Your task to perform on an android device: delete a single message in the gmail app Image 0: 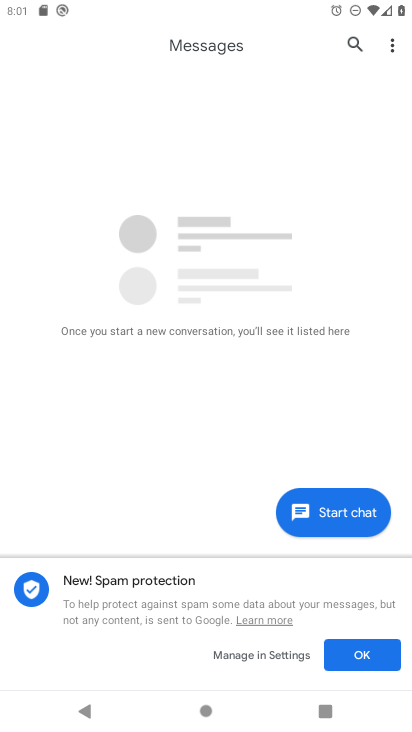
Step 0: press home button
Your task to perform on an android device: delete a single message in the gmail app Image 1: 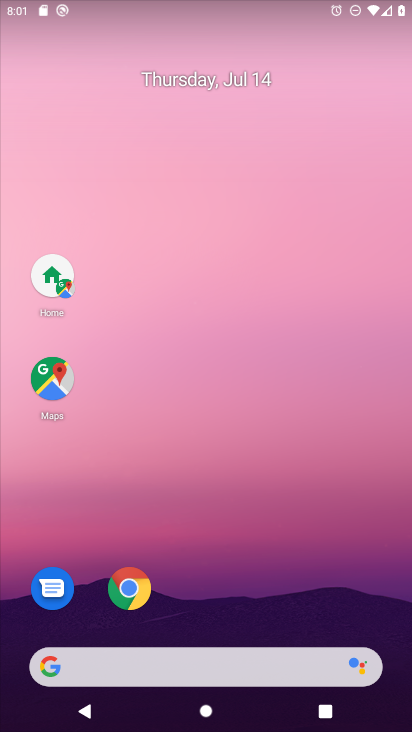
Step 1: drag from (151, 407) to (213, 250)
Your task to perform on an android device: delete a single message in the gmail app Image 2: 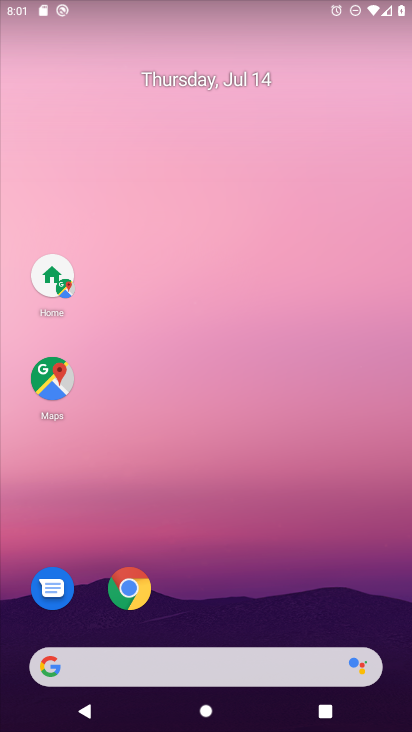
Step 2: drag from (22, 712) to (254, 174)
Your task to perform on an android device: delete a single message in the gmail app Image 3: 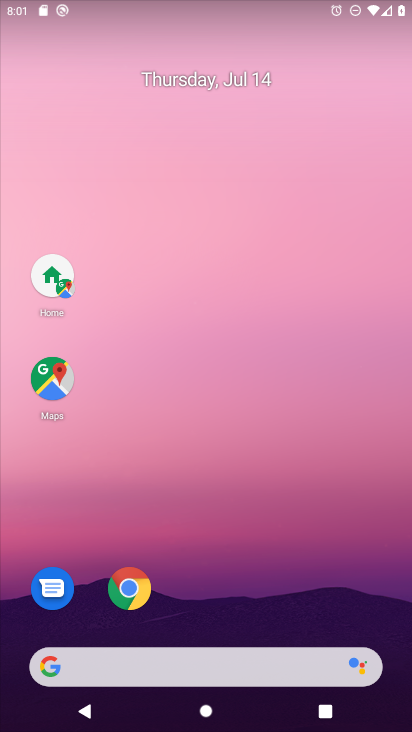
Step 3: drag from (34, 698) to (316, 1)
Your task to perform on an android device: delete a single message in the gmail app Image 4: 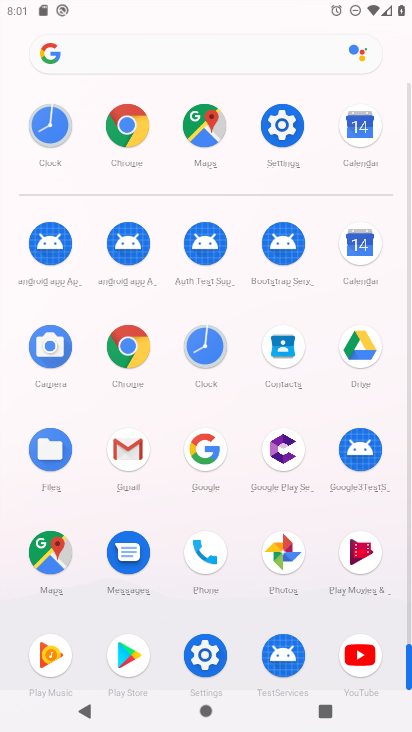
Step 4: click (127, 449)
Your task to perform on an android device: delete a single message in the gmail app Image 5: 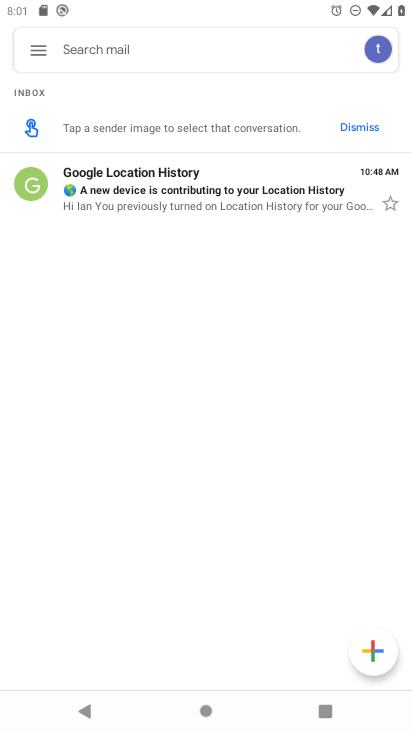
Step 5: click (208, 173)
Your task to perform on an android device: delete a single message in the gmail app Image 6: 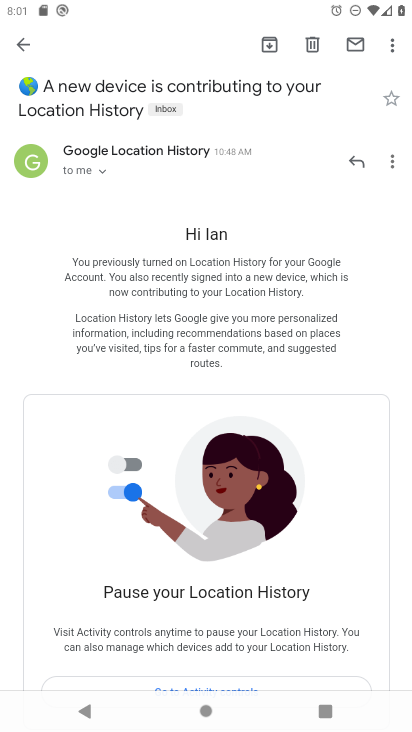
Step 6: click (305, 41)
Your task to perform on an android device: delete a single message in the gmail app Image 7: 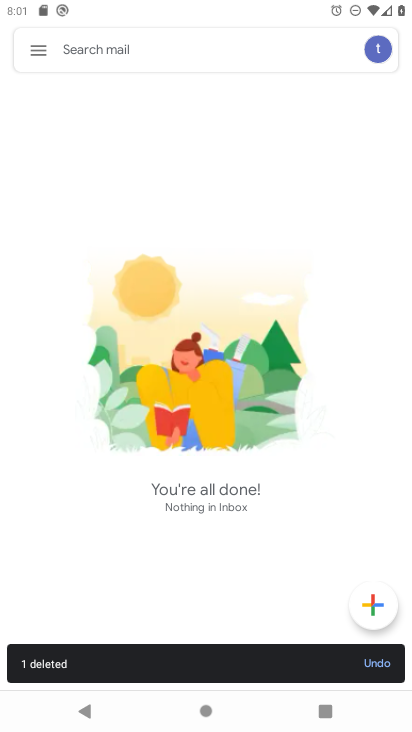
Step 7: task complete